Your task to perform on an android device: Open calendar and show me the first week of next month Image 0: 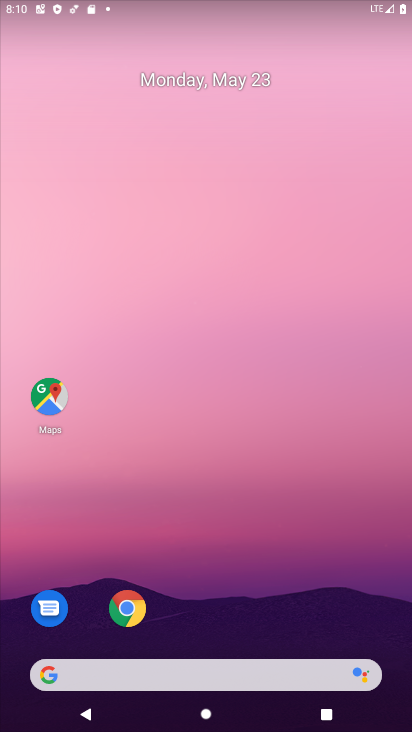
Step 0: drag from (267, 678) to (236, 189)
Your task to perform on an android device: Open calendar and show me the first week of next month Image 1: 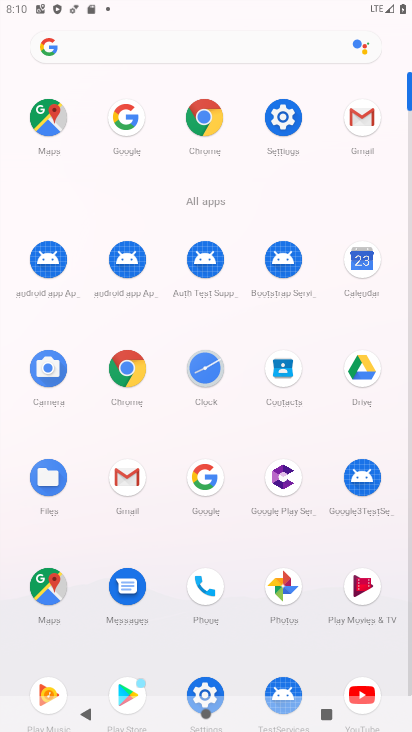
Step 1: click (362, 272)
Your task to perform on an android device: Open calendar and show me the first week of next month Image 2: 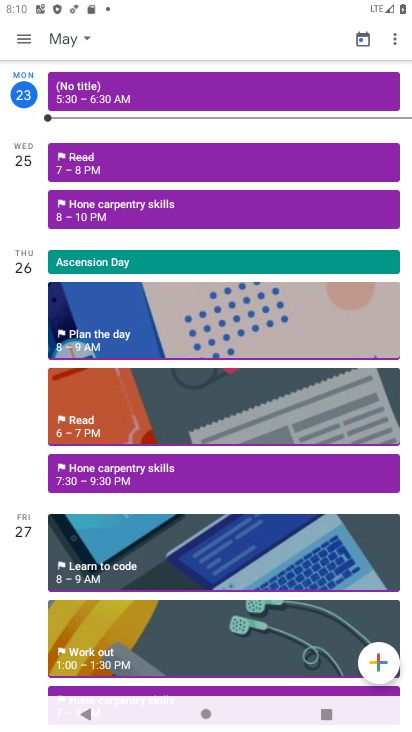
Step 2: click (23, 44)
Your task to perform on an android device: Open calendar and show me the first week of next month Image 3: 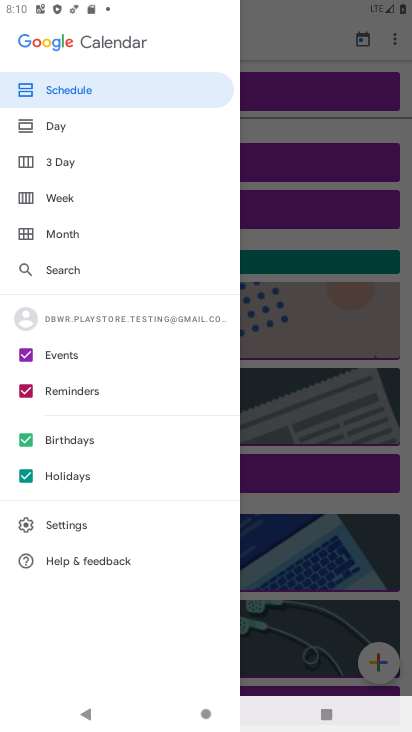
Step 3: click (75, 237)
Your task to perform on an android device: Open calendar and show me the first week of next month Image 4: 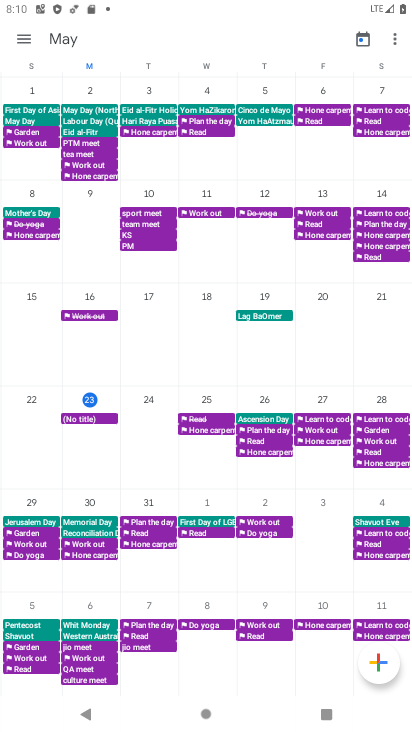
Step 4: task complete